Your task to perform on an android device: check battery use Image 0: 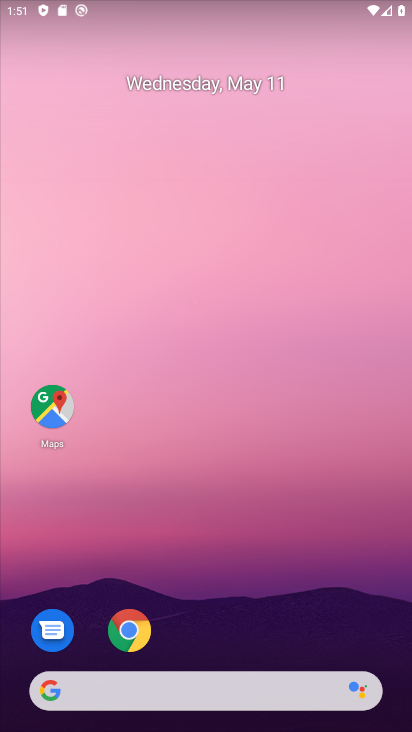
Step 0: drag from (225, 723) to (224, 97)
Your task to perform on an android device: check battery use Image 1: 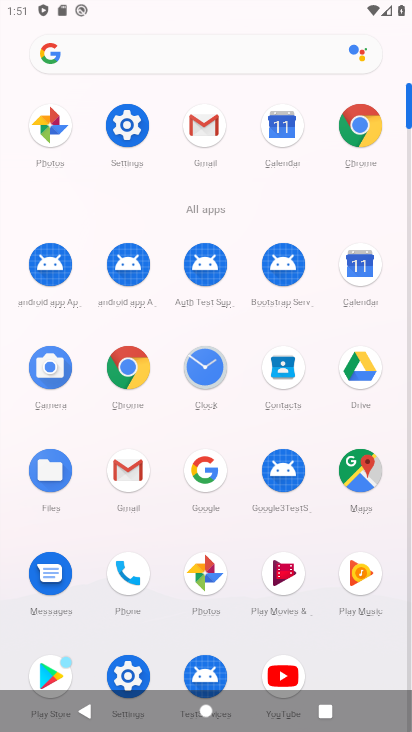
Step 1: click (133, 671)
Your task to perform on an android device: check battery use Image 2: 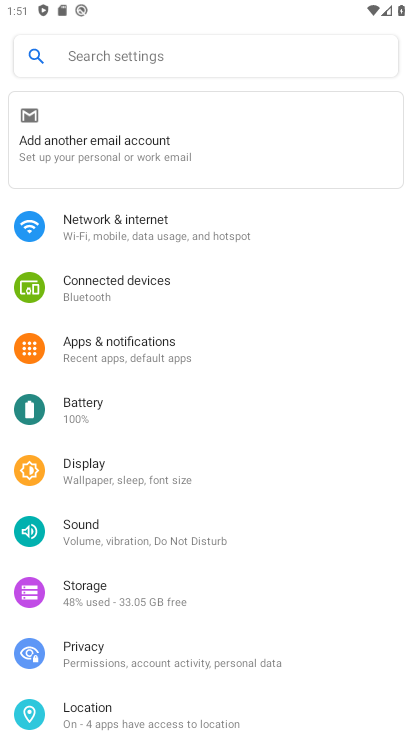
Step 2: click (76, 417)
Your task to perform on an android device: check battery use Image 3: 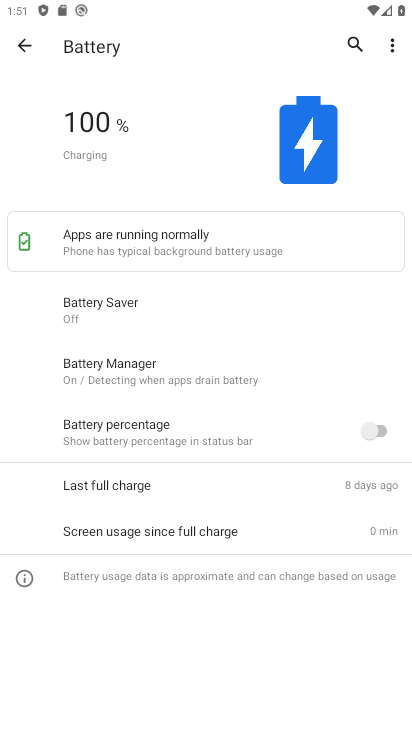
Step 3: click (391, 43)
Your task to perform on an android device: check battery use Image 4: 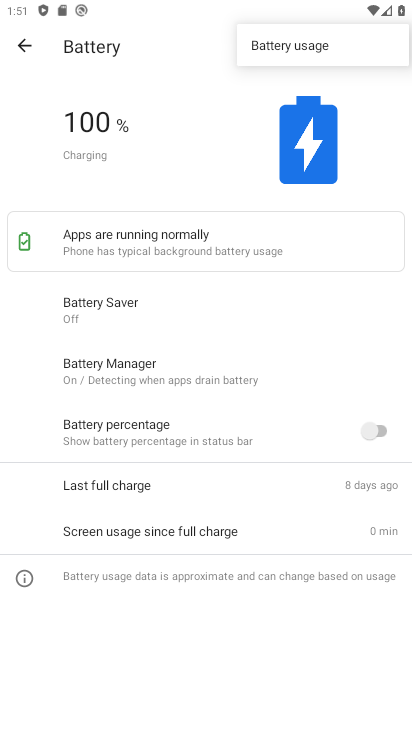
Step 4: click (298, 42)
Your task to perform on an android device: check battery use Image 5: 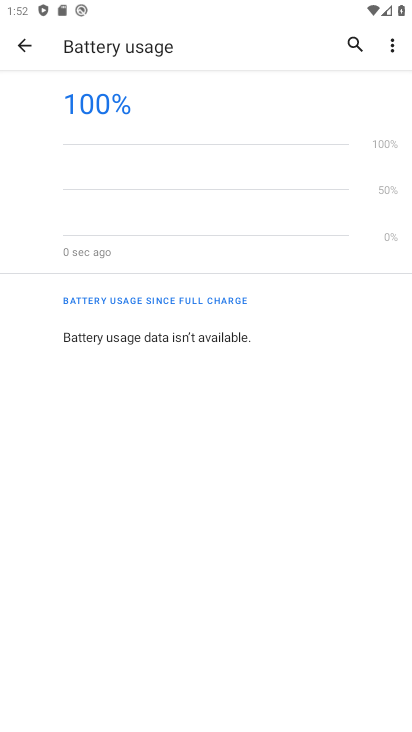
Step 5: task complete